Your task to perform on an android device: Add "macbook pro 13 inch" to the cart on bestbuy, then select checkout. Image 0: 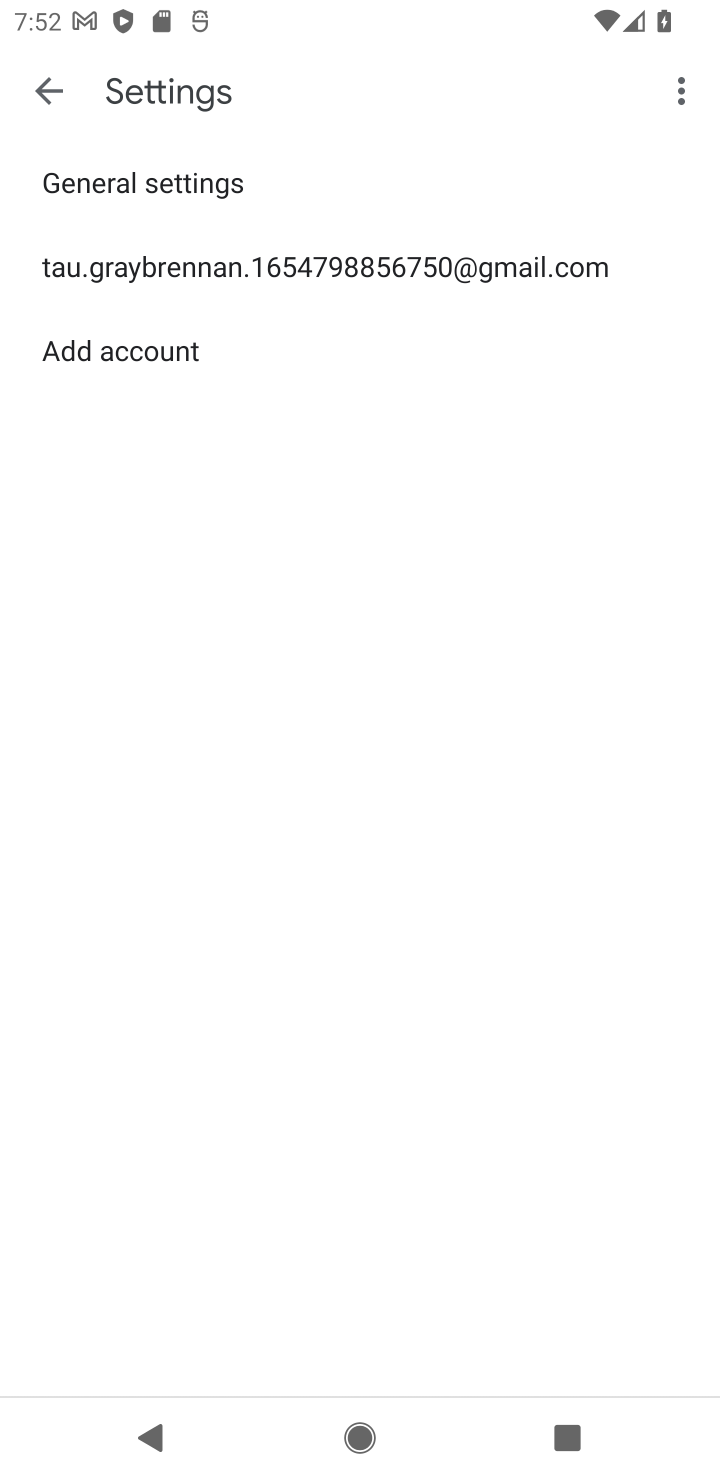
Step 0: task complete